Your task to perform on an android device: Open Google Chrome and open the bookmarks view Image 0: 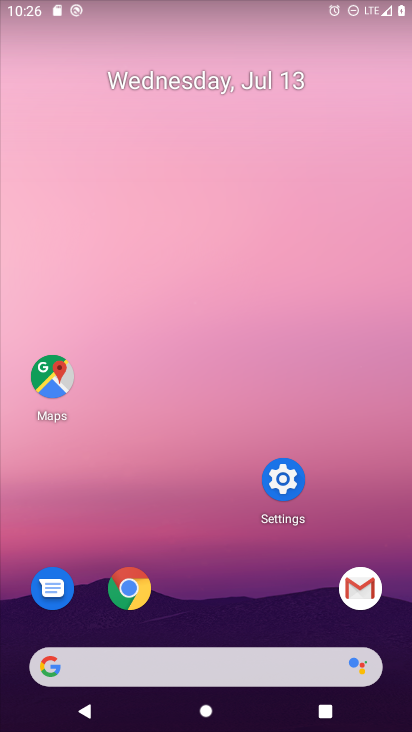
Step 0: click (135, 598)
Your task to perform on an android device: Open Google Chrome and open the bookmarks view Image 1: 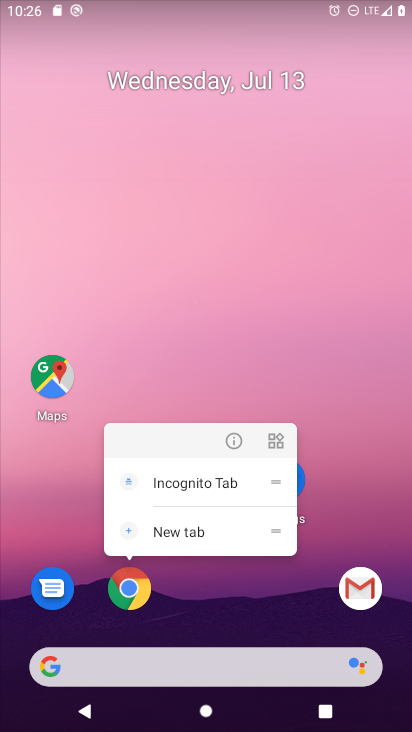
Step 1: click (128, 600)
Your task to perform on an android device: Open Google Chrome and open the bookmarks view Image 2: 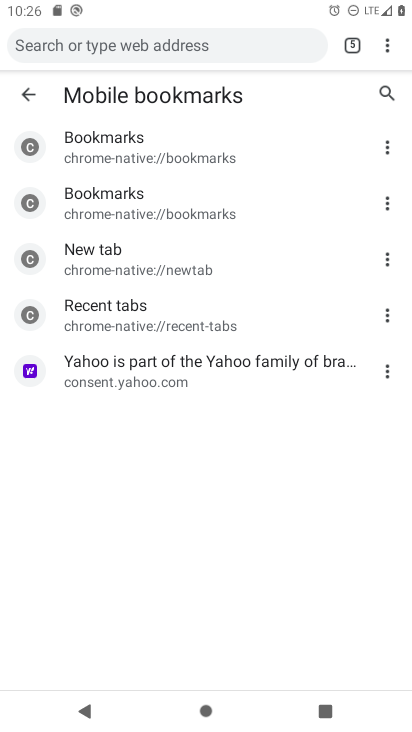
Step 2: click (90, 149)
Your task to perform on an android device: Open Google Chrome and open the bookmarks view Image 3: 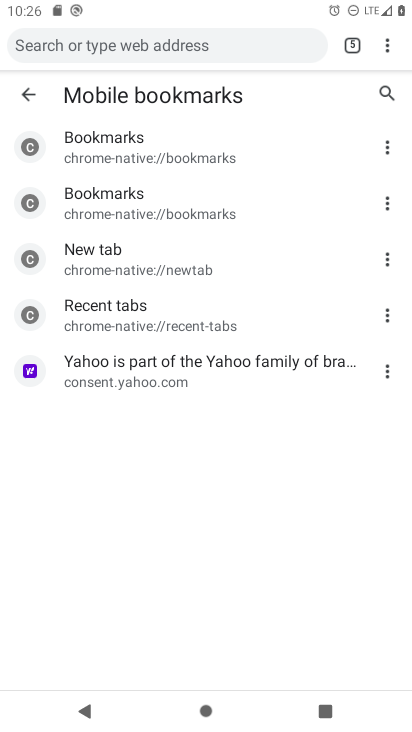
Step 3: task complete